Your task to perform on an android device: empty trash in the gmail app Image 0: 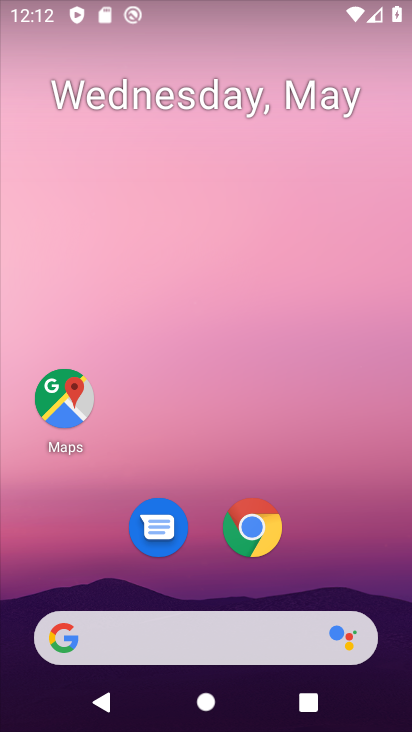
Step 0: drag from (374, 577) to (270, 177)
Your task to perform on an android device: empty trash in the gmail app Image 1: 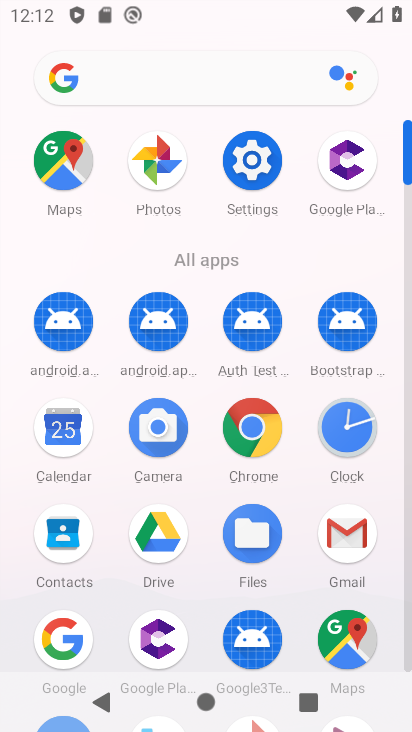
Step 1: click (367, 526)
Your task to perform on an android device: empty trash in the gmail app Image 2: 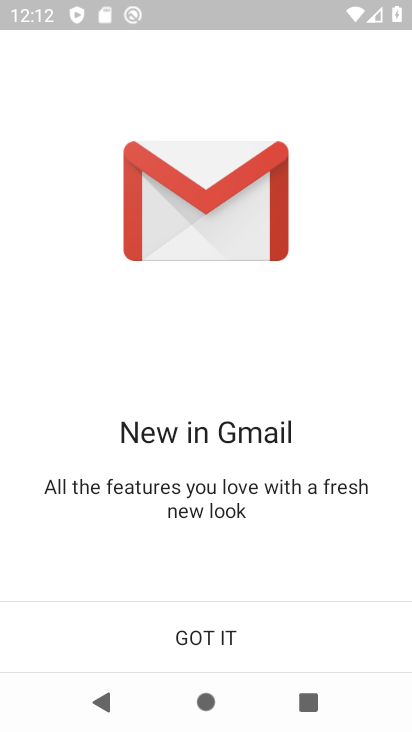
Step 2: click (226, 641)
Your task to perform on an android device: empty trash in the gmail app Image 3: 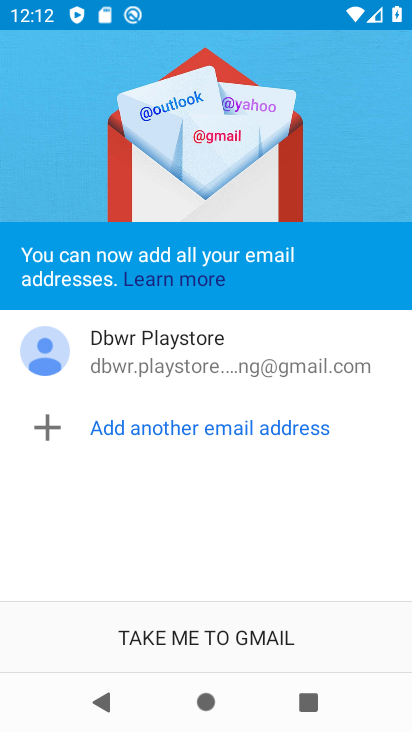
Step 3: click (226, 641)
Your task to perform on an android device: empty trash in the gmail app Image 4: 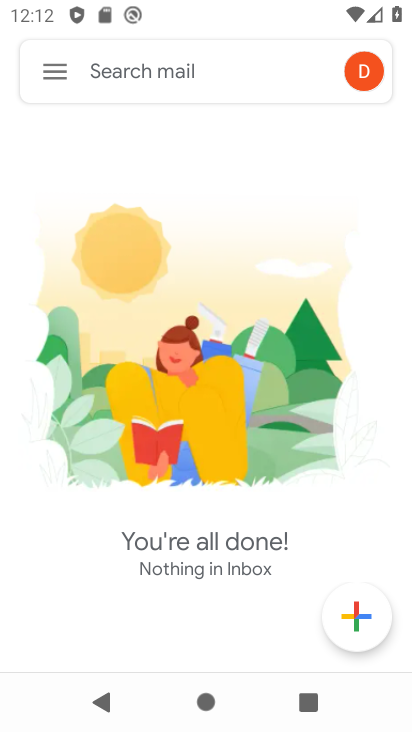
Step 4: click (57, 88)
Your task to perform on an android device: empty trash in the gmail app Image 5: 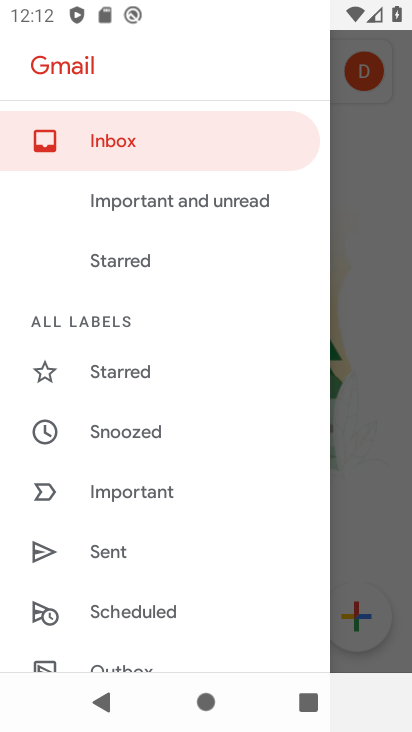
Step 5: drag from (146, 645) to (100, 197)
Your task to perform on an android device: empty trash in the gmail app Image 6: 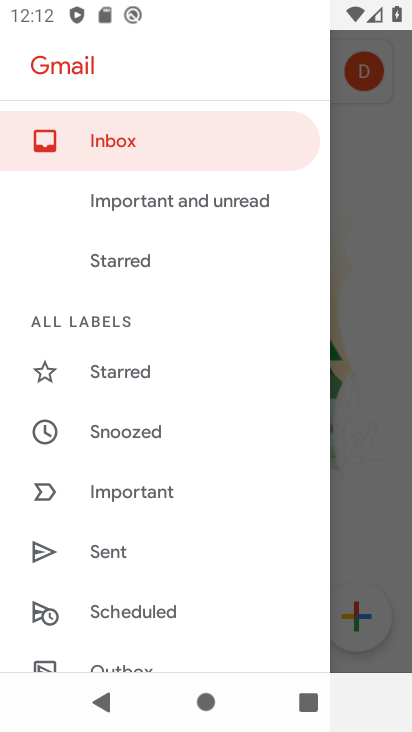
Step 6: drag from (150, 652) to (137, 209)
Your task to perform on an android device: empty trash in the gmail app Image 7: 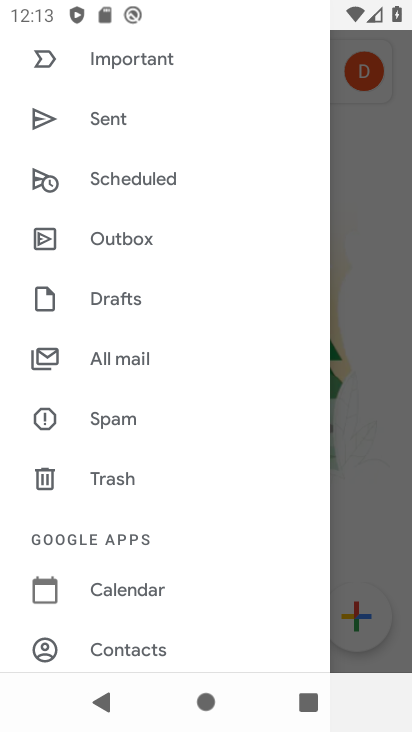
Step 7: click (149, 474)
Your task to perform on an android device: empty trash in the gmail app Image 8: 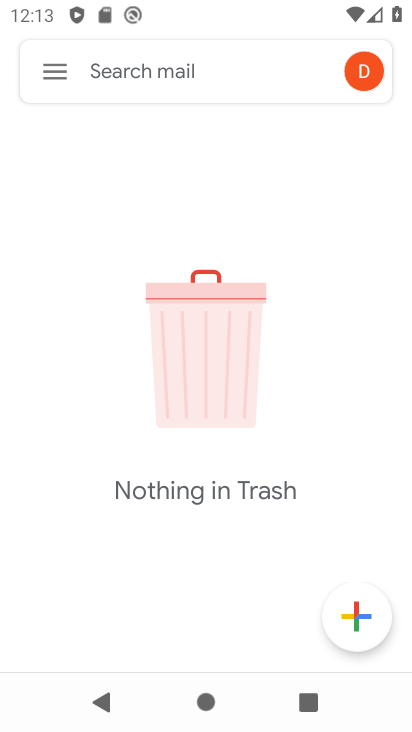
Step 8: task complete